Your task to perform on an android device: allow notifications from all sites in the chrome app Image 0: 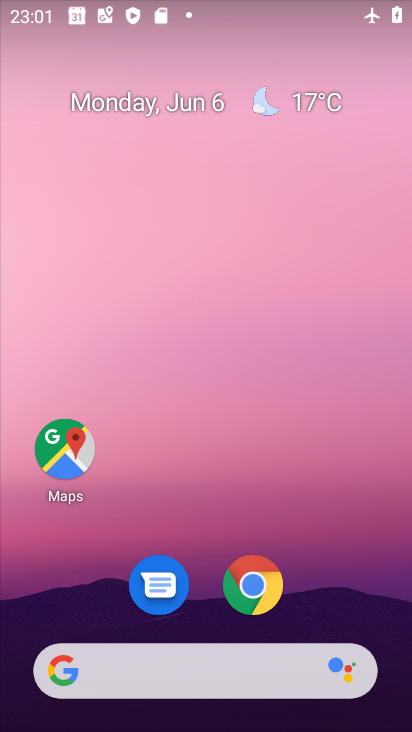
Step 0: click (252, 586)
Your task to perform on an android device: allow notifications from all sites in the chrome app Image 1: 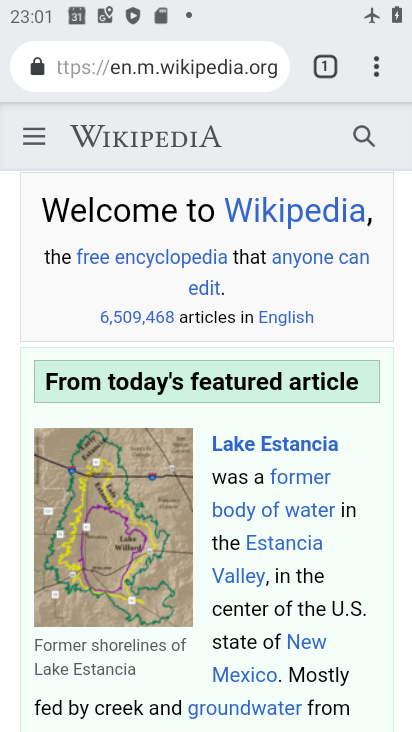
Step 1: click (381, 71)
Your task to perform on an android device: allow notifications from all sites in the chrome app Image 2: 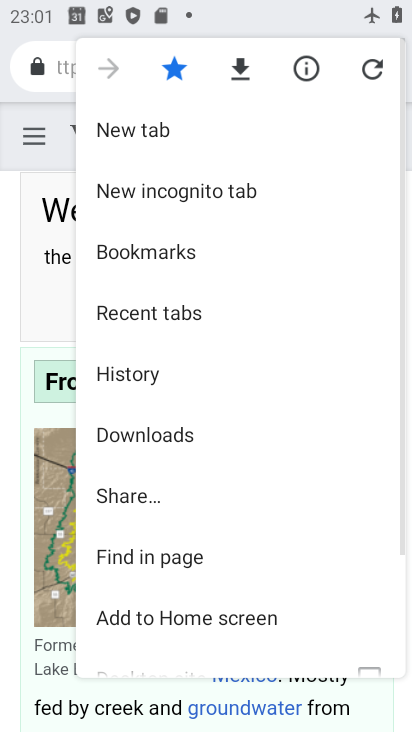
Step 2: drag from (273, 551) to (267, 263)
Your task to perform on an android device: allow notifications from all sites in the chrome app Image 3: 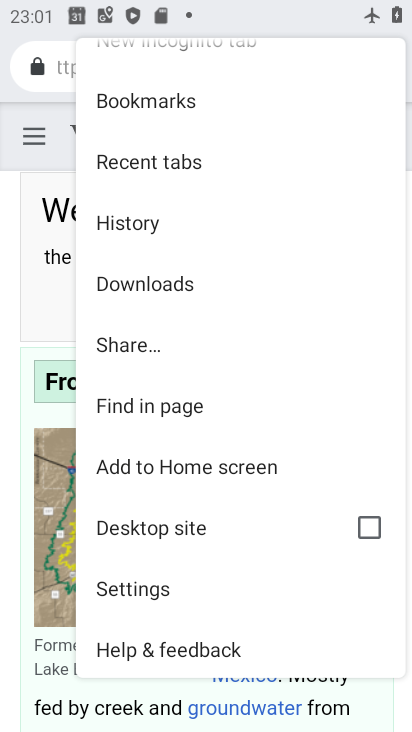
Step 3: click (159, 590)
Your task to perform on an android device: allow notifications from all sites in the chrome app Image 4: 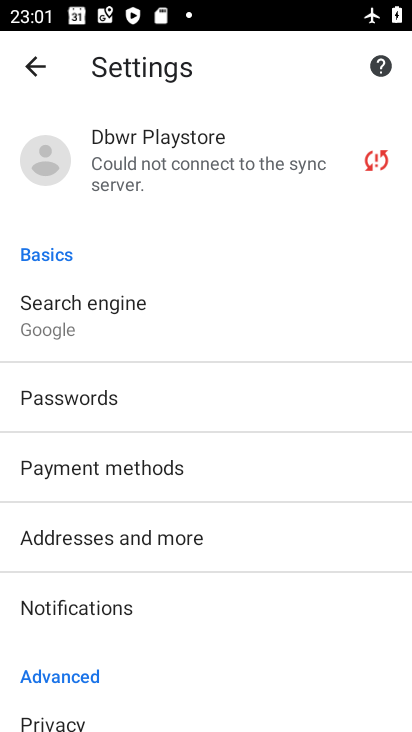
Step 4: click (276, 594)
Your task to perform on an android device: allow notifications from all sites in the chrome app Image 5: 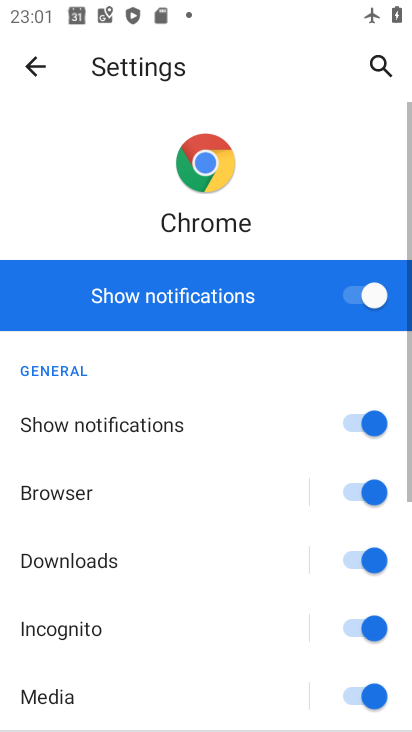
Step 5: task complete